Your task to perform on an android device: open app "Nova Launcher" (install if not already installed), go to login, and select forgot password Image 0: 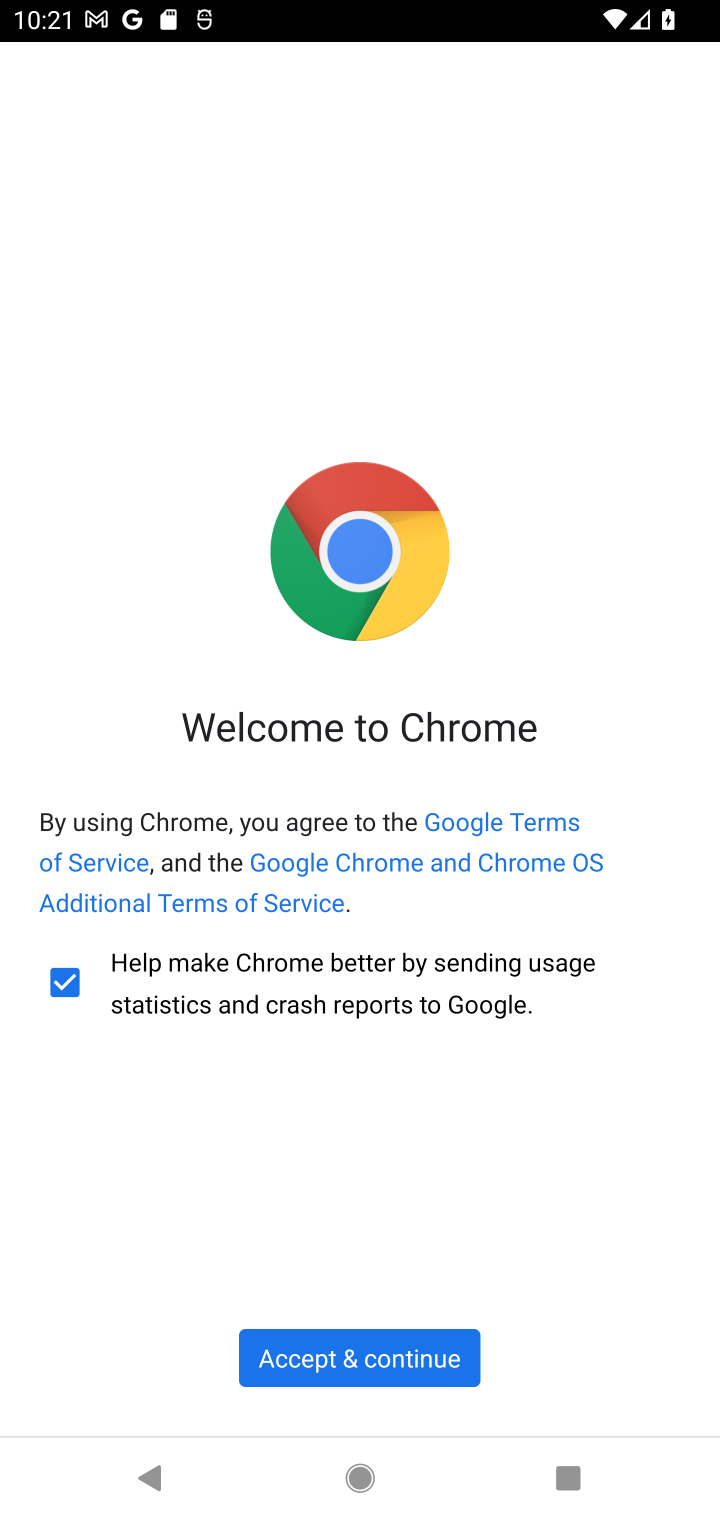
Step 0: press home button
Your task to perform on an android device: open app "Nova Launcher" (install if not already installed), go to login, and select forgot password Image 1: 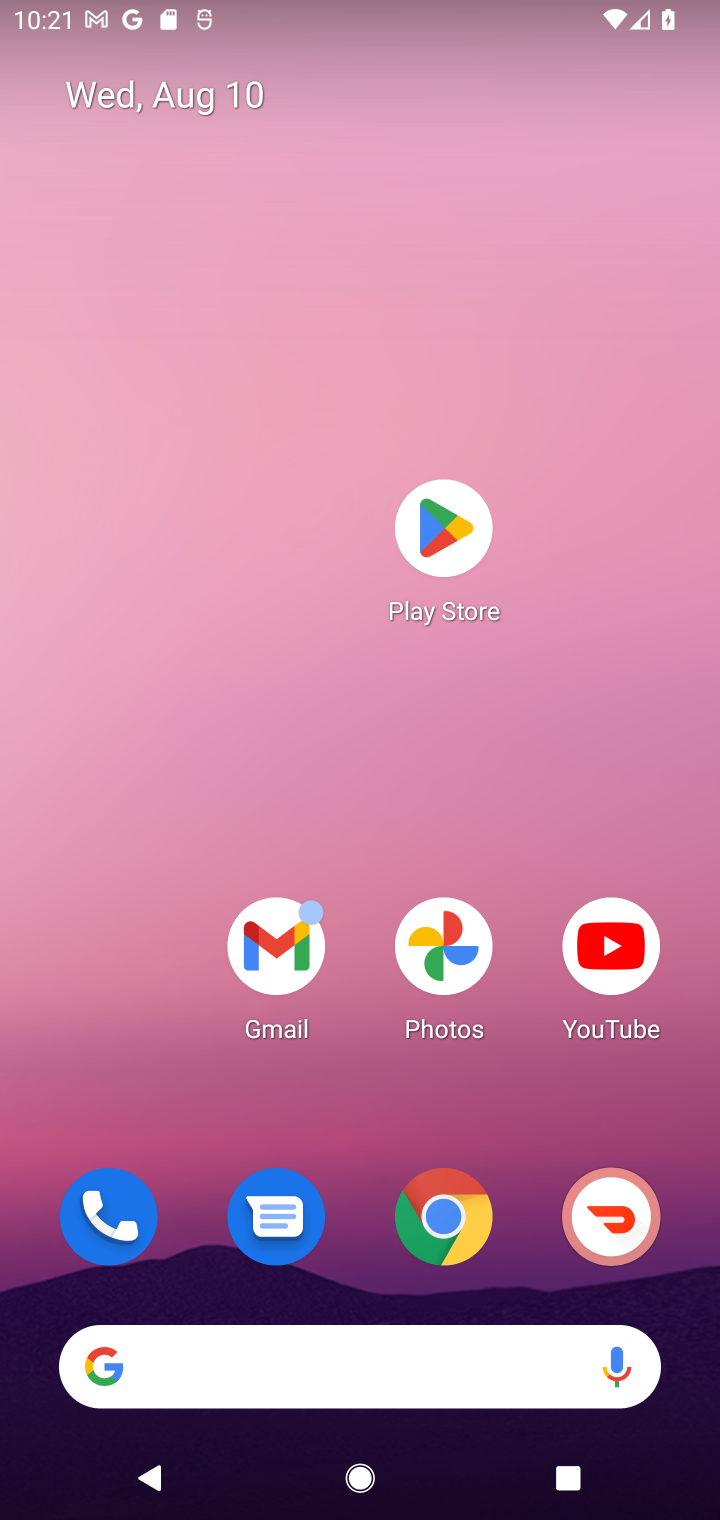
Step 1: click (443, 537)
Your task to perform on an android device: open app "Nova Launcher" (install if not already installed), go to login, and select forgot password Image 2: 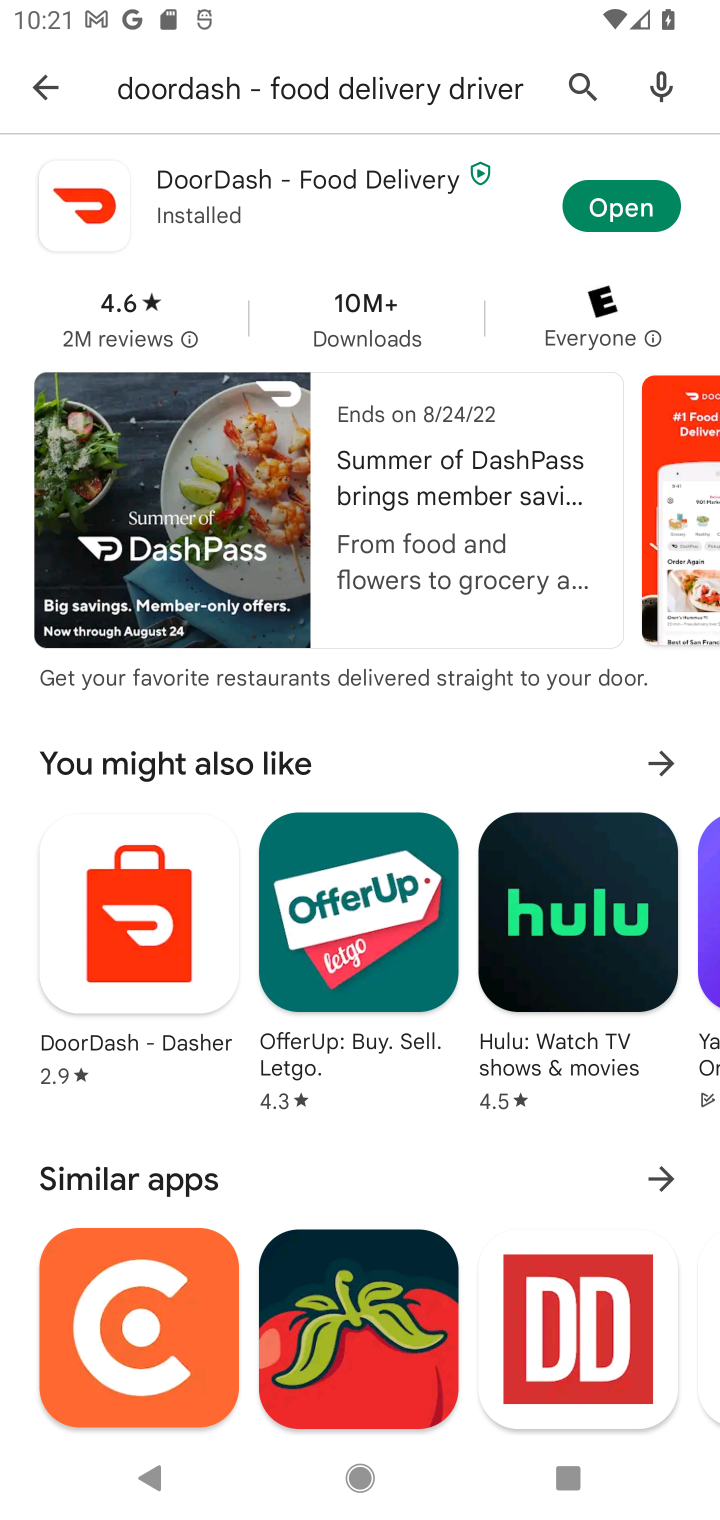
Step 2: click (578, 87)
Your task to perform on an android device: open app "Nova Launcher" (install if not already installed), go to login, and select forgot password Image 3: 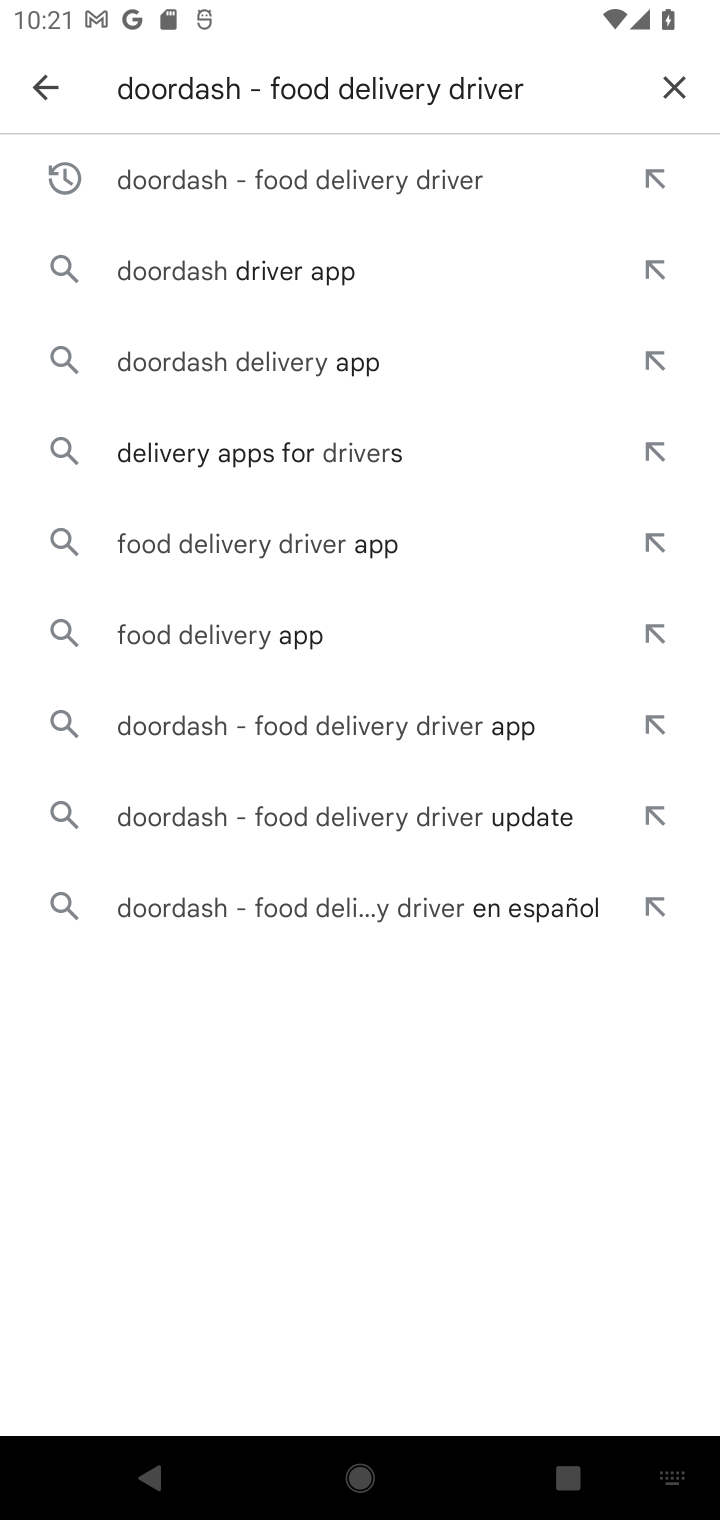
Step 3: click (665, 87)
Your task to perform on an android device: open app "Nova Launcher" (install if not already installed), go to login, and select forgot password Image 4: 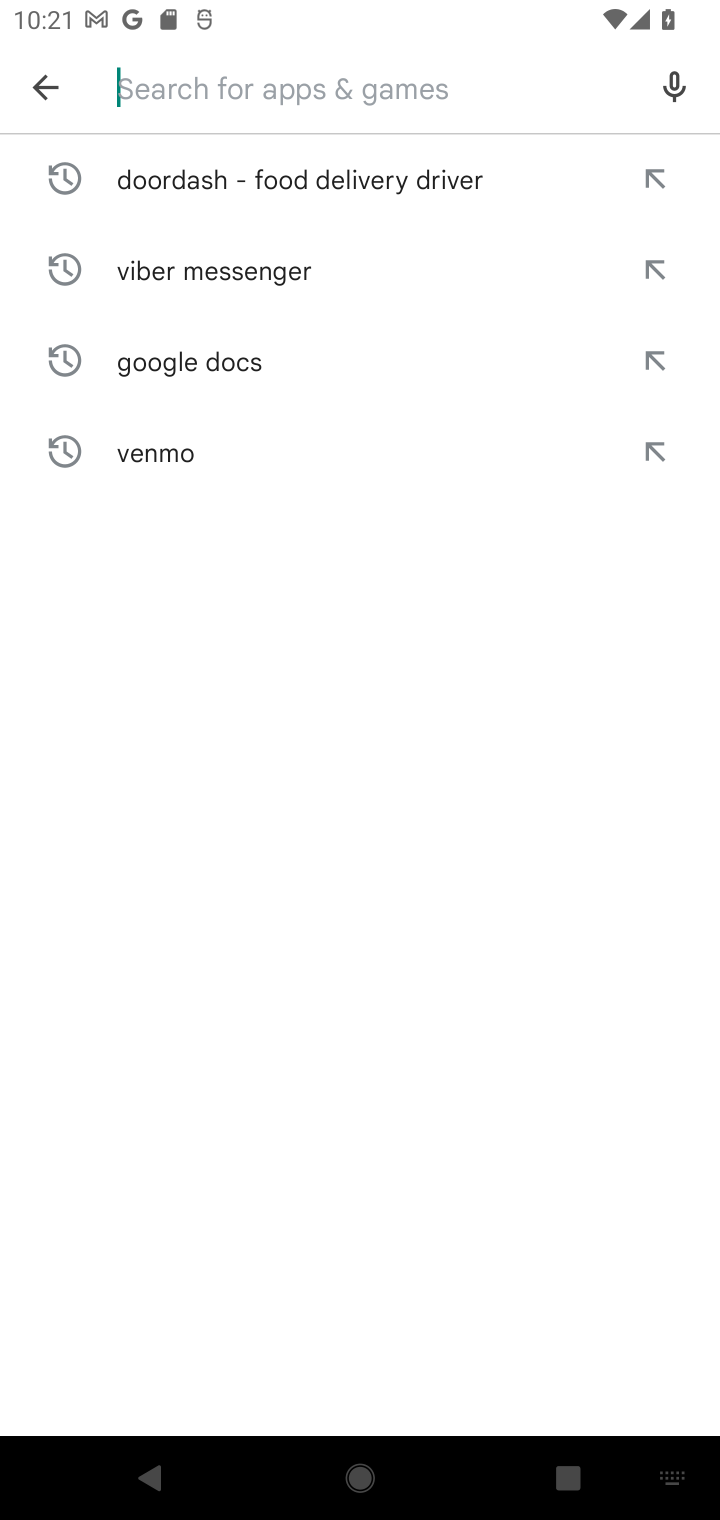
Step 4: type "Nova Launcher"
Your task to perform on an android device: open app "Nova Launcher" (install if not already installed), go to login, and select forgot password Image 5: 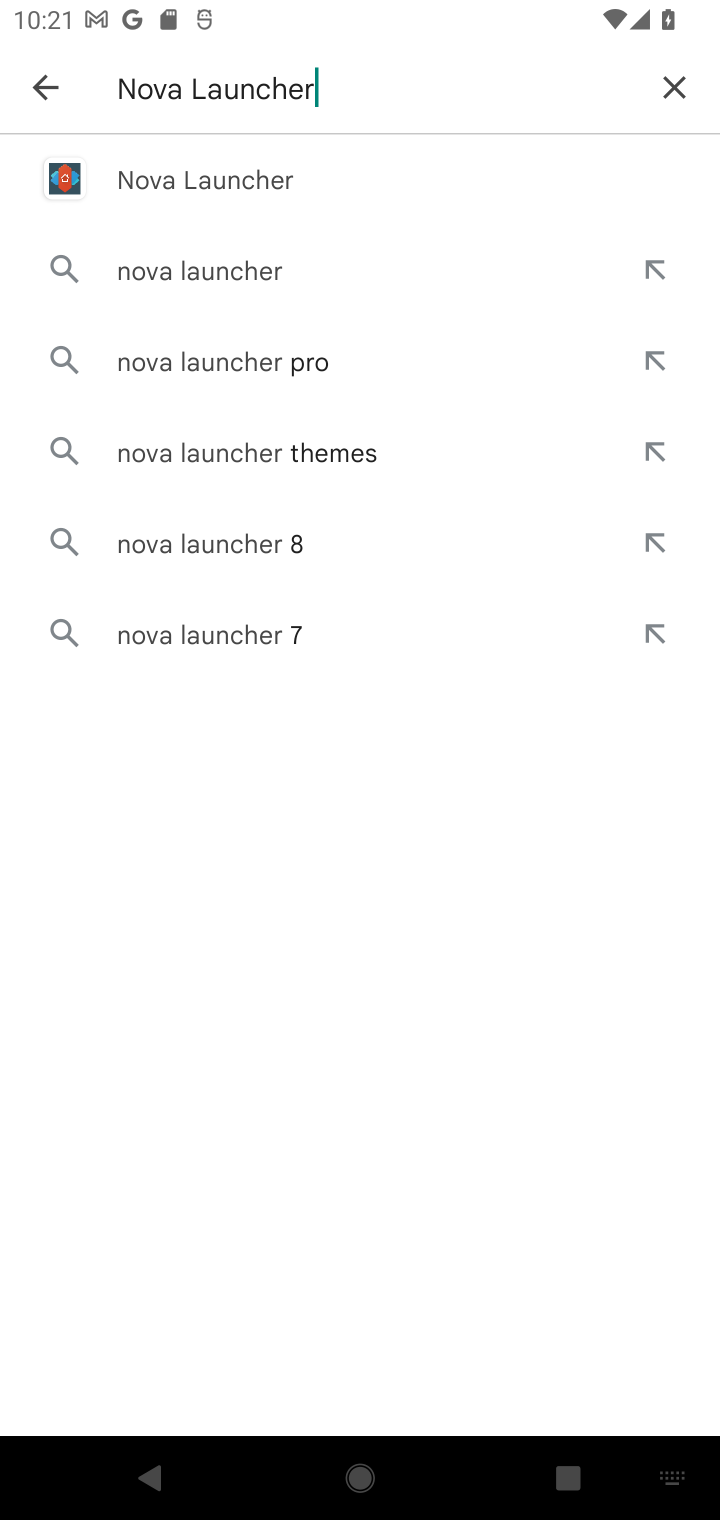
Step 5: click (233, 193)
Your task to perform on an android device: open app "Nova Launcher" (install if not already installed), go to login, and select forgot password Image 6: 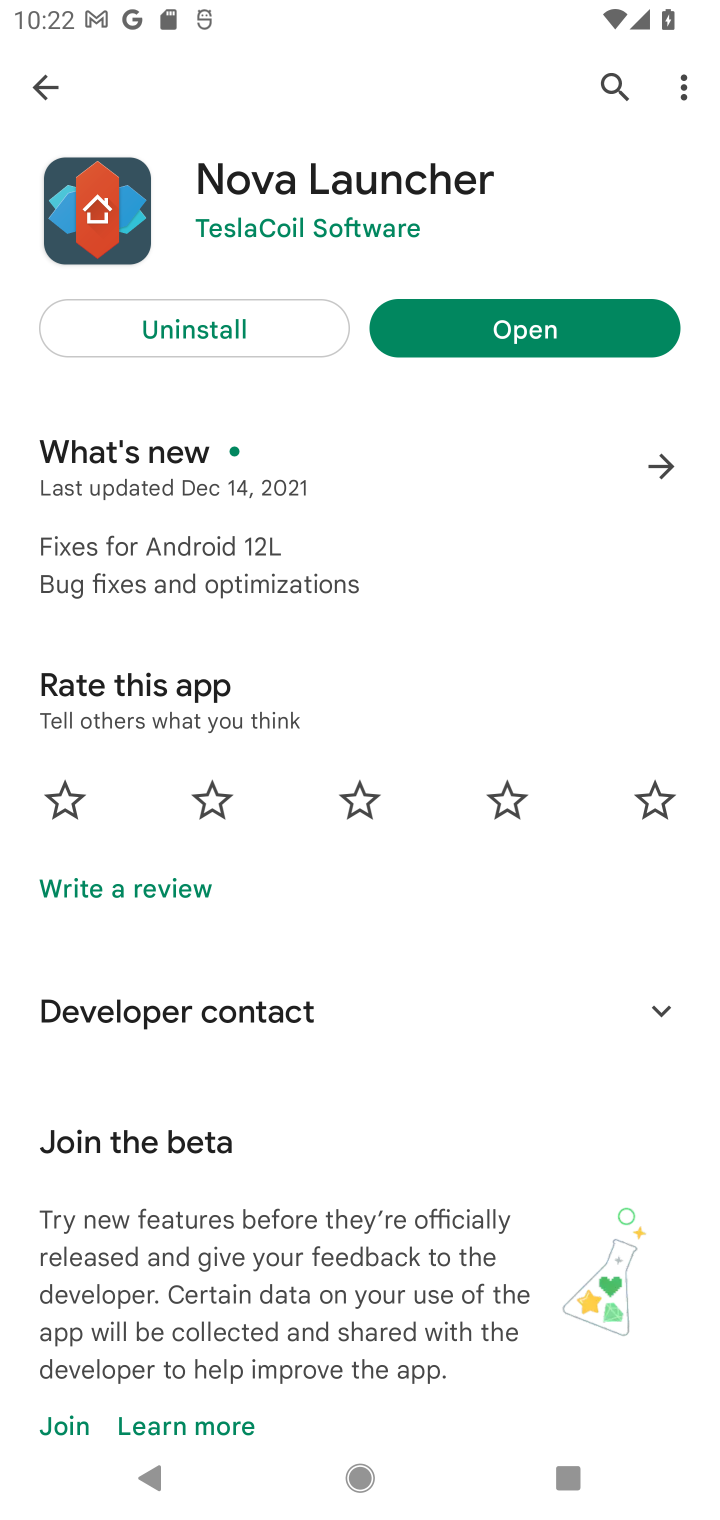
Step 6: click (484, 337)
Your task to perform on an android device: open app "Nova Launcher" (install if not already installed), go to login, and select forgot password Image 7: 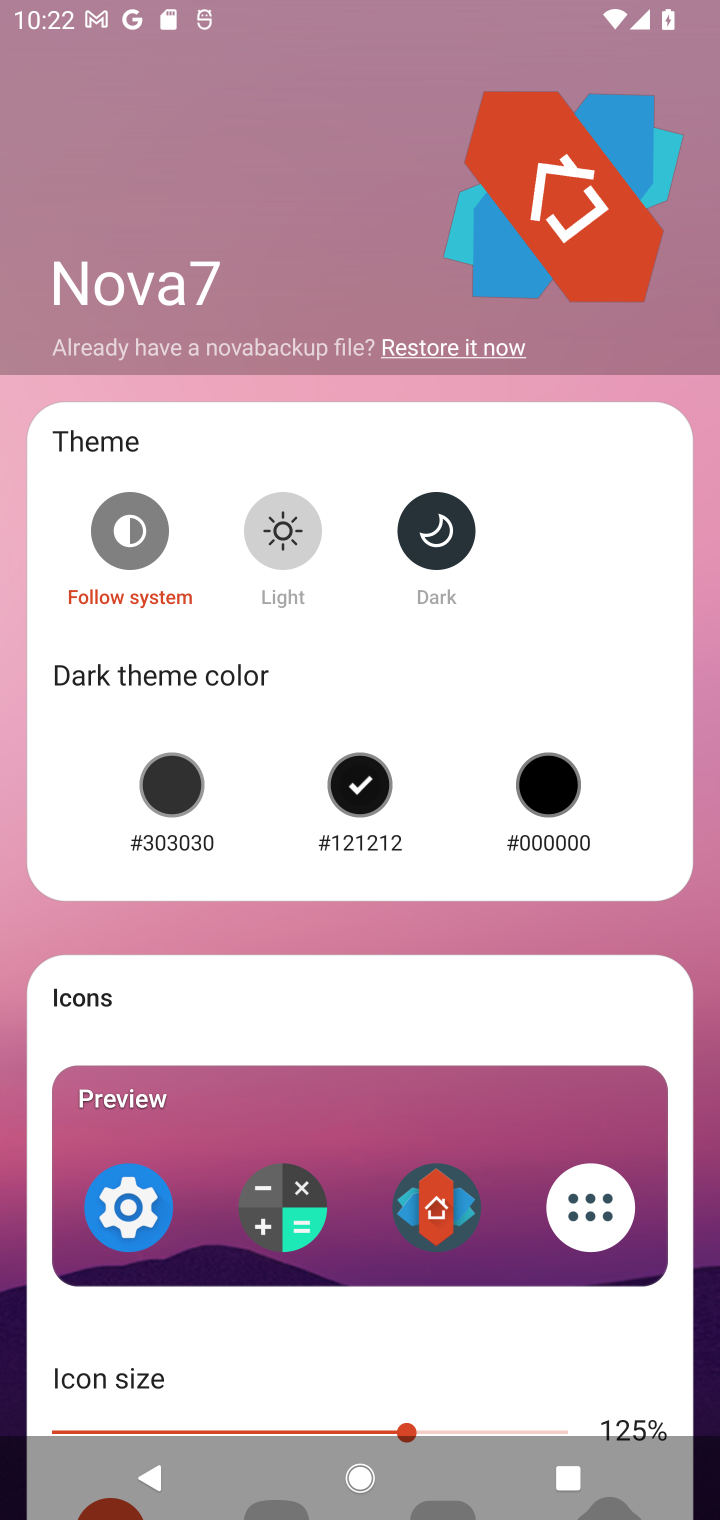
Step 7: task complete